Your task to perform on an android device: Turn on the flashlight Image 0: 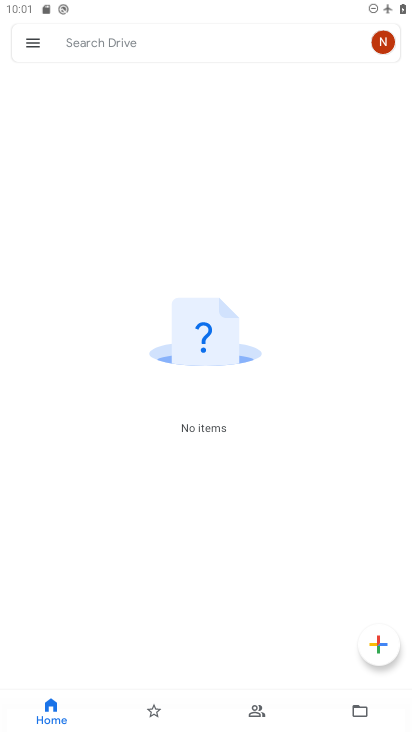
Step 0: press home button
Your task to perform on an android device: Turn on the flashlight Image 1: 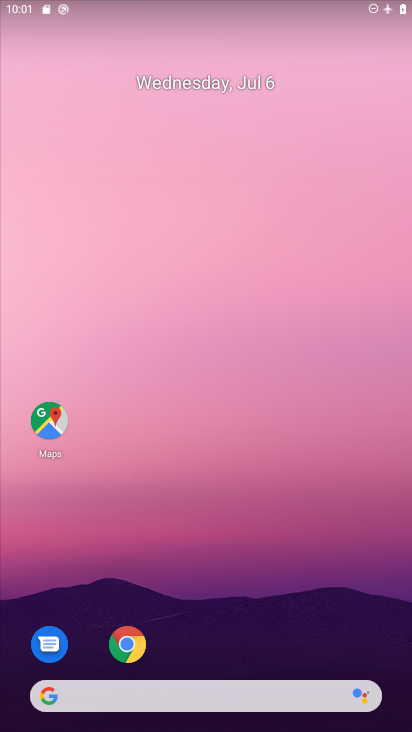
Step 1: drag from (208, 619) to (211, 176)
Your task to perform on an android device: Turn on the flashlight Image 2: 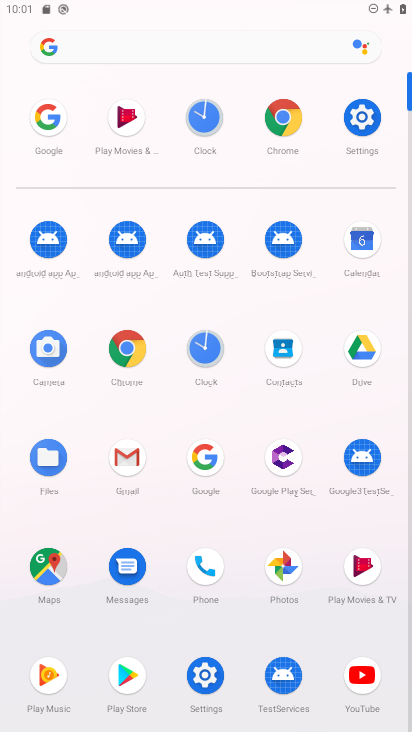
Step 2: click (348, 117)
Your task to perform on an android device: Turn on the flashlight Image 3: 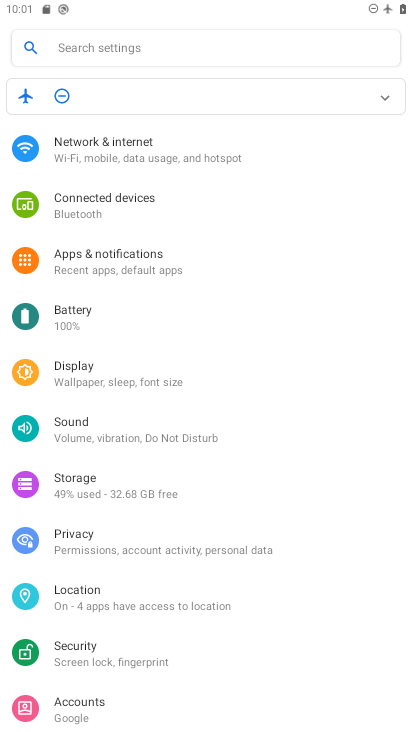
Step 3: task complete